Your task to perform on an android device: Open Maps and search for coffee Image 0: 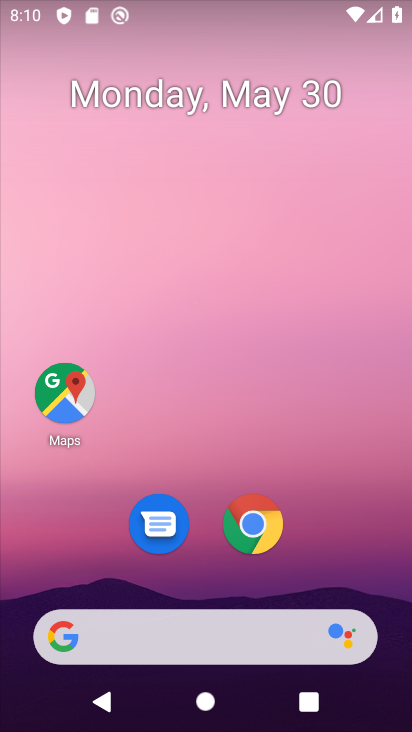
Step 0: click (53, 386)
Your task to perform on an android device: Open Maps and search for coffee Image 1: 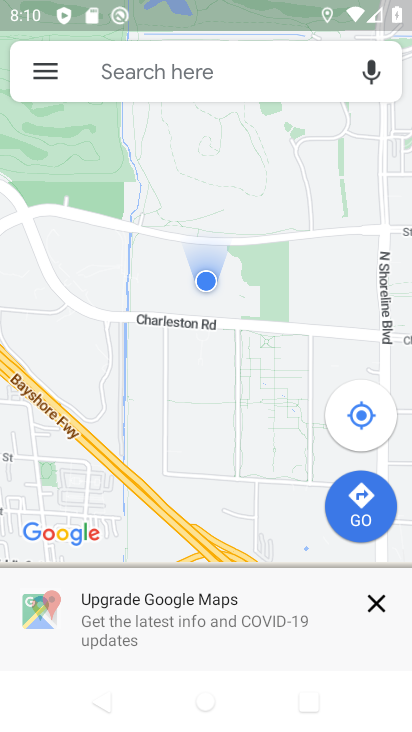
Step 1: click (198, 65)
Your task to perform on an android device: Open Maps and search for coffee Image 2: 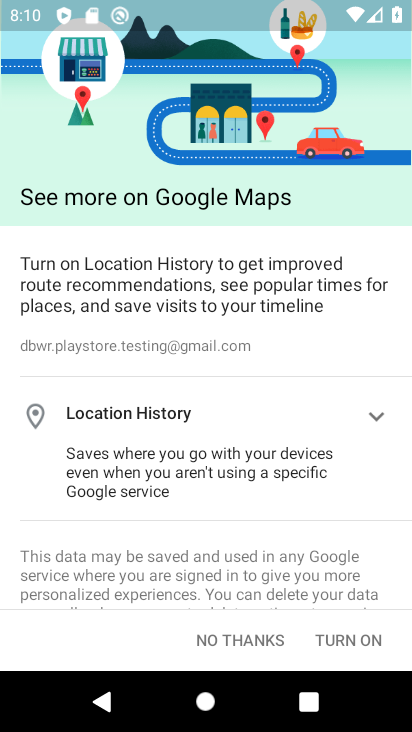
Step 2: click (335, 641)
Your task to perform on an android device: Open Maps and search for coffee Image 3: 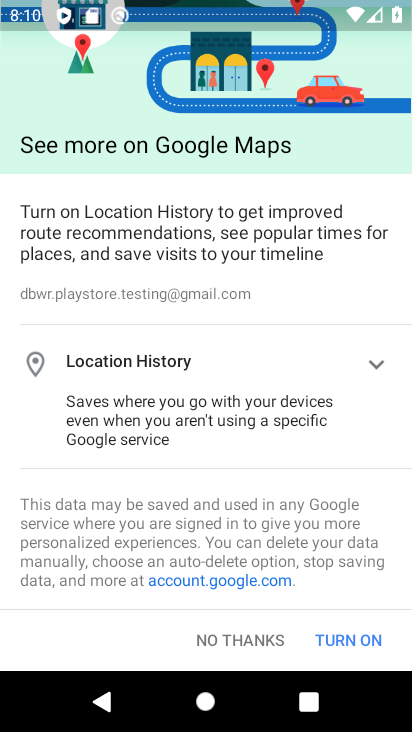
Step 3: click (335, 641)
Your task to perform on an android device: Open Maps and search for coffee Image 4: 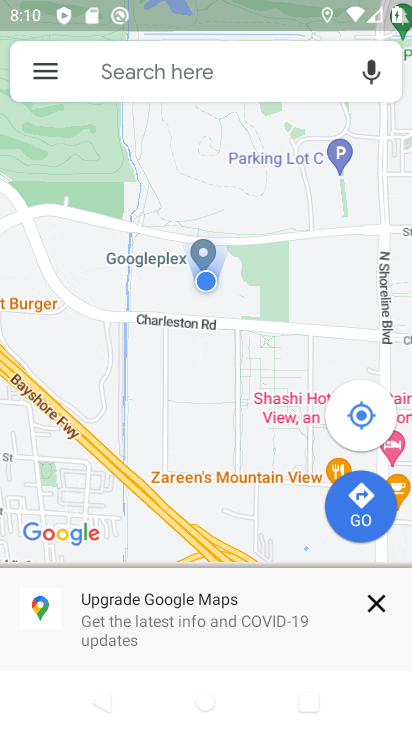
Step 4: click (216, 69)
Your task to perform on an android device: Open Maps and search for coffee Image 5: 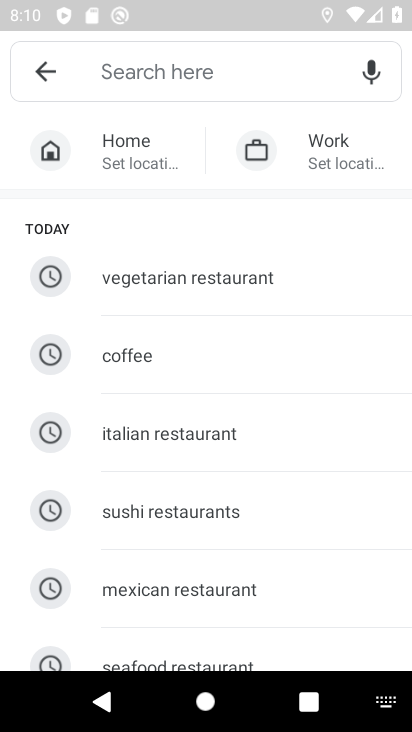
Step 5: click (150, 348)
Your task to perform on an android device: Open Maps and search for coffee Image 6: 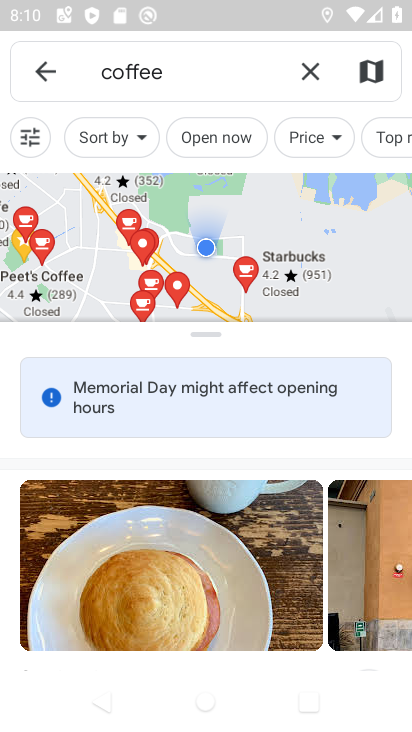
Step 6: task complete